Your task to perform on an android device: toggle notification dots Image 0: 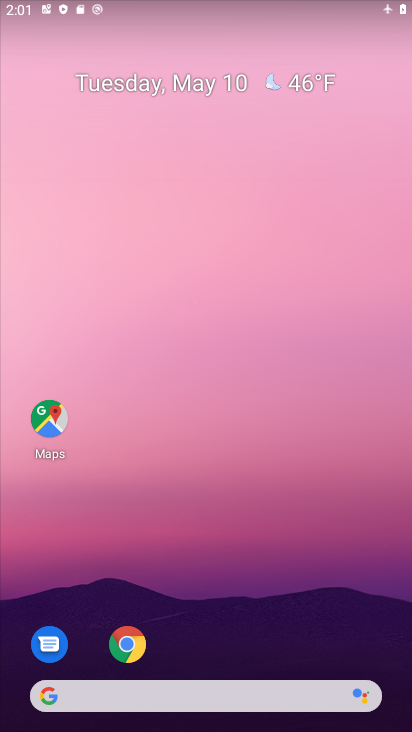
Step 0: drag from (256, 621) to (241, 33)
Your task to perform on an android device: toggle notification dots Image 1: 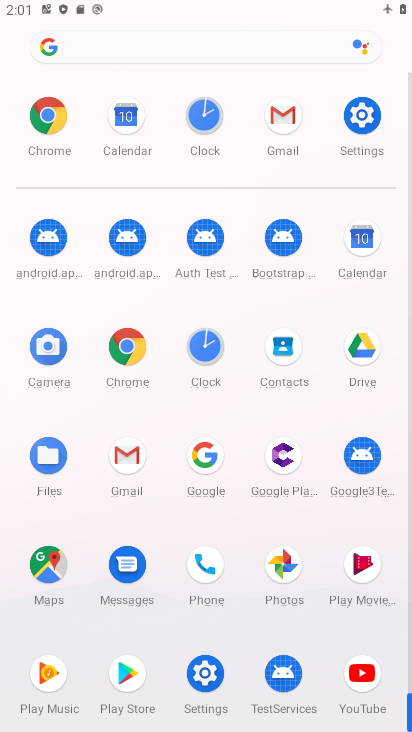
Step 1: click (370, 140)
Your task to perform on an android device: toggle notification dots Image 2: 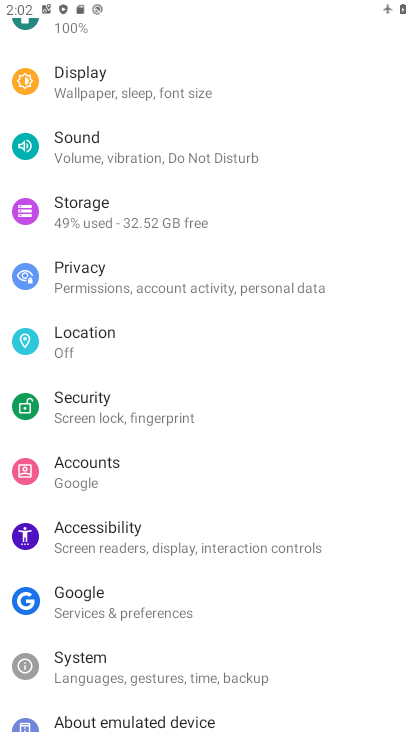
Step 2: drag from (143, 172) to (182, 552)
Your task to perform on an android device: toggle notification dots Image 3: 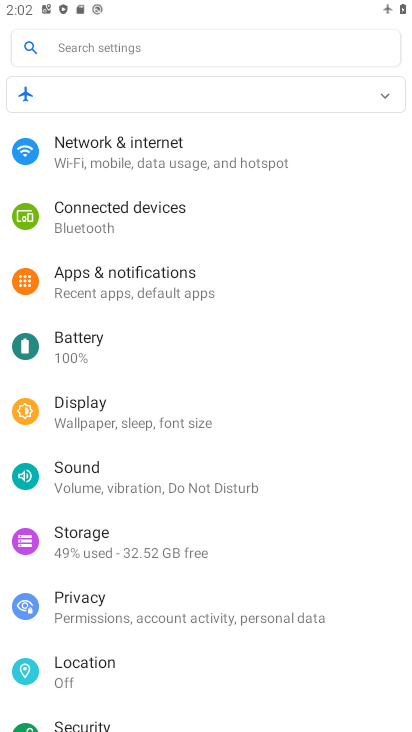
Step 3: click (145, 279)
Your task to perform on an android device: toggle notification dots Image 4: 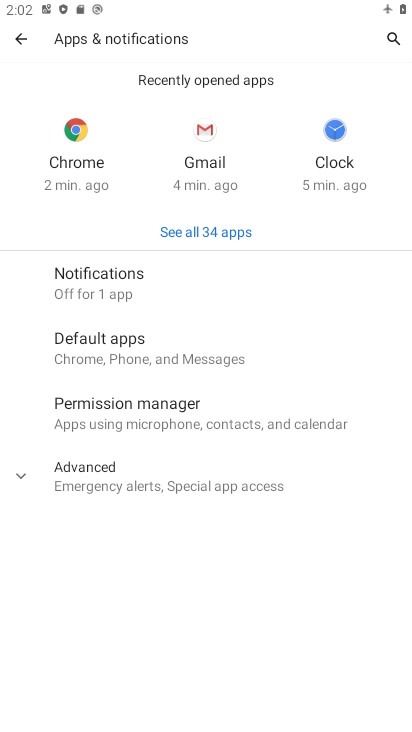
Step 4: click (117, 479)
Your task to perform on an android device: toggle notification dots Image 5: 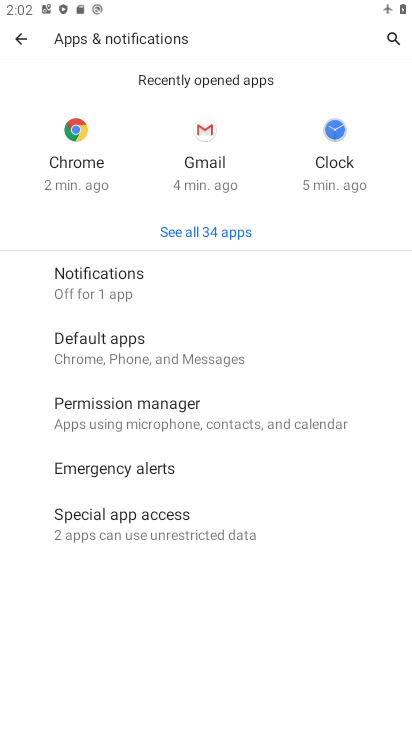
Step 5: drag from (134, 582) to (132, 414)
Your task to perform on an android device: toggle notification dots Image 6: 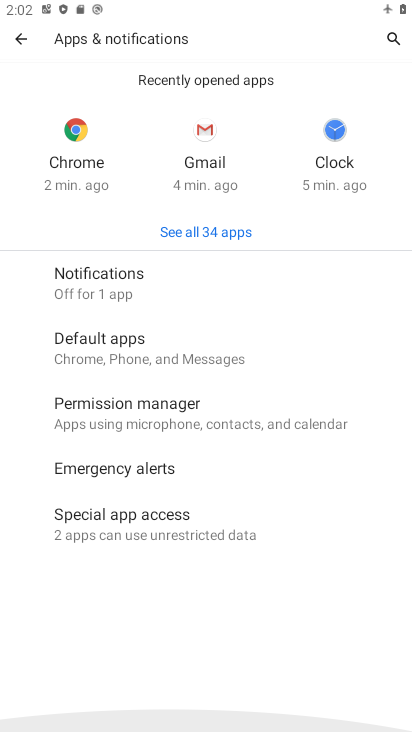
Step 6: click (122, 519)
Your task to perform on an android device: toggle notification dots Image 7: 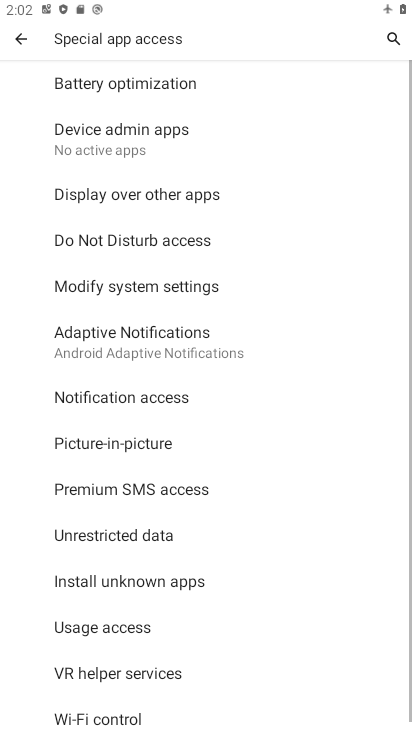
Step 7: drag from (163, 610) to (182, 218)
Your task to perform on an android device: toggle notification dots Image 8: 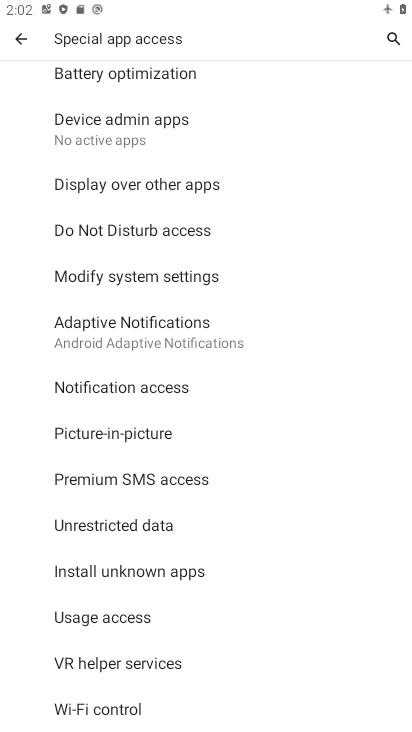
Step 8: press back button
Your task to perform on an android device: toggle notification dots Image 9: 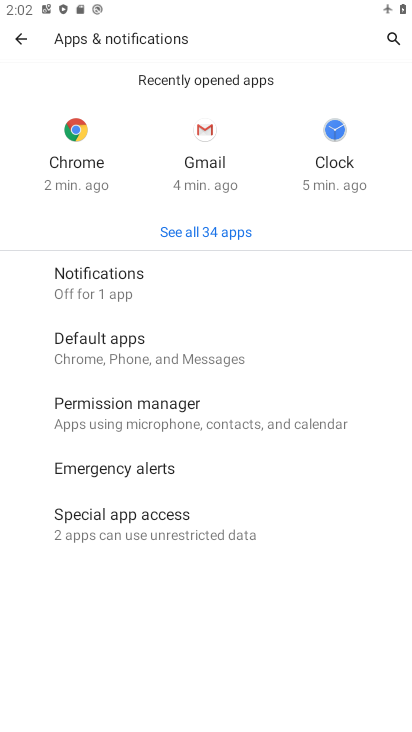
Step 9: click (142, 277)
Your task to perform on an android device: toggle notification dots Image 10: 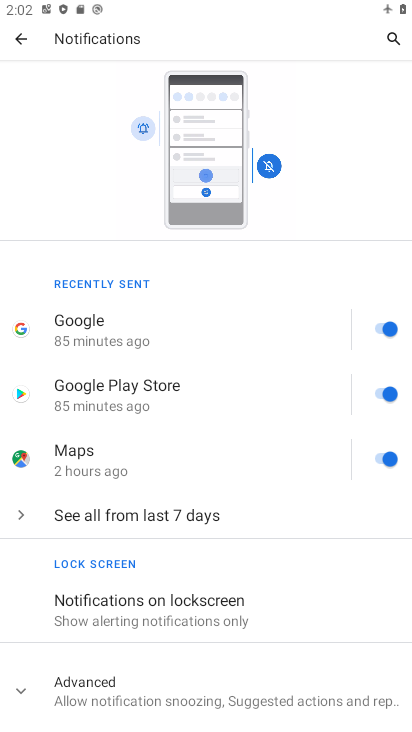
Step 10: drag from (243, 662) to (261, 350)
Your task to perform on an android device: toggle notification dots Image 11: 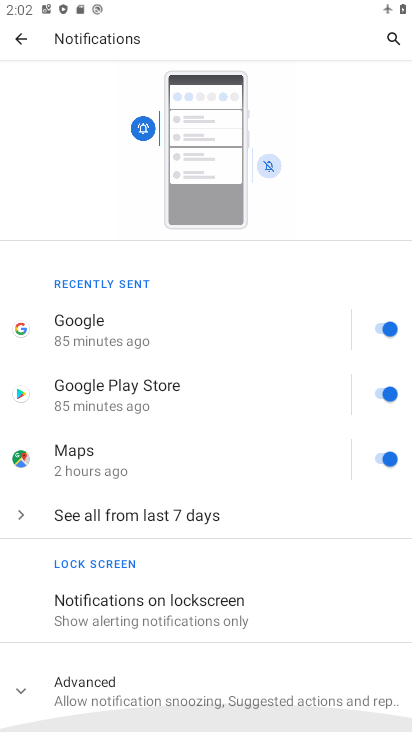
Step 11: click (113, 711)
Your task to perform on an android device: toggle notification dots Image 12: 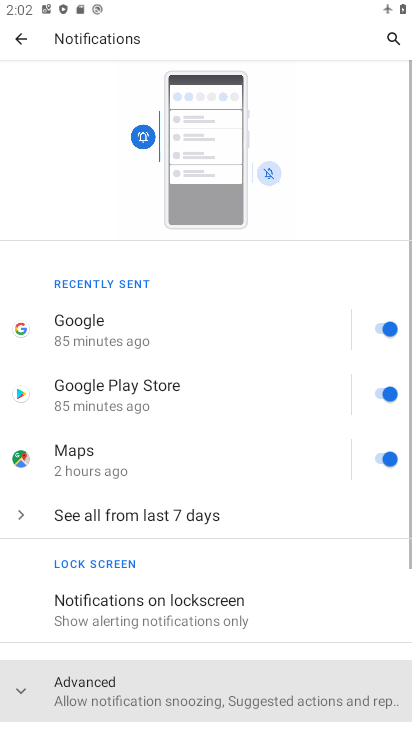
Step 12: drag from (165, 579) to (204, 138)
Your task to perform on an android device: toggle notification dots Image 13: 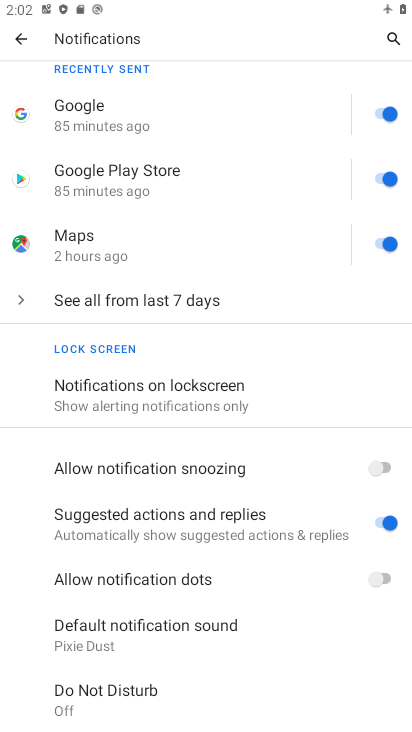
Step 13: click (371, 579)
Your task to perform on an android device: toggle notification dots Image 14: 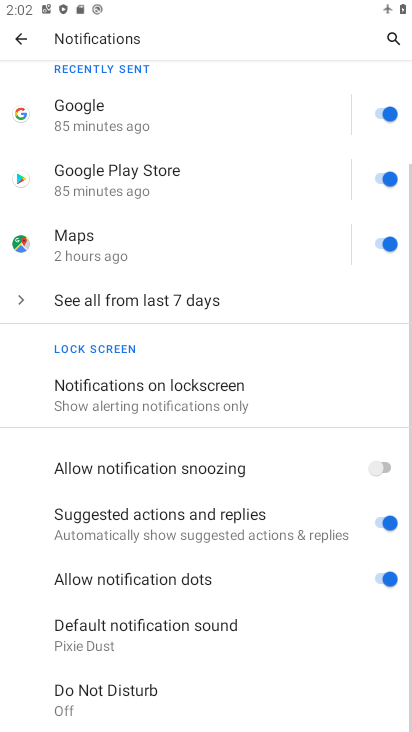
Step 14: task complete